Your task to perform on an android device: open the mobile data screen to see how much data has been used Image 0: 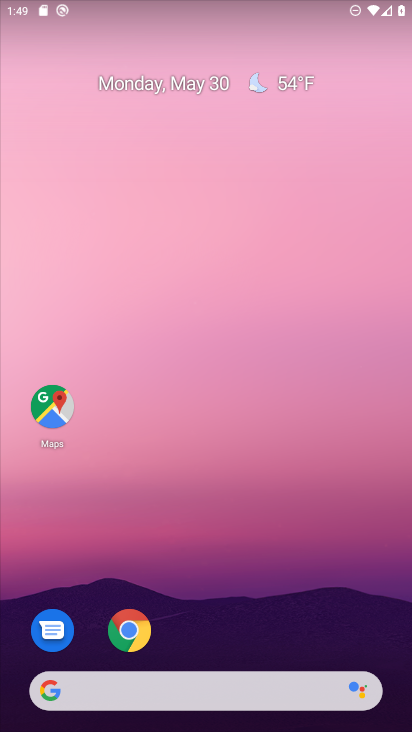
Step 0: drag from (221, 673) to (236, 144)
Your task to perform on an android device: open the mobile data screen to see how much data has been used Image 1: 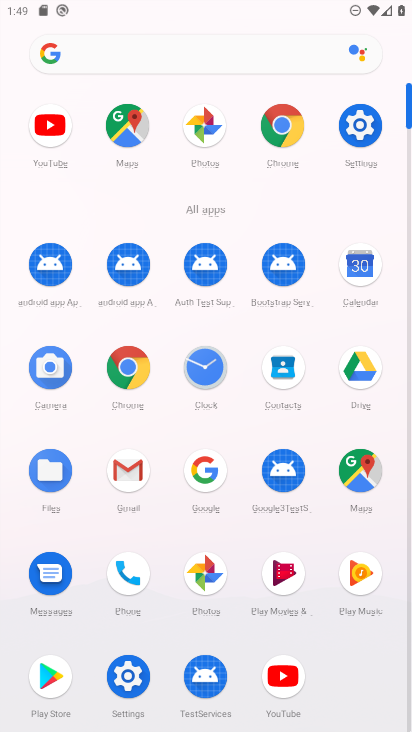
Step 1: click (344, 142)
Your task to perform on an android device: open the mobile data screen to see how much data has been used Image 2: 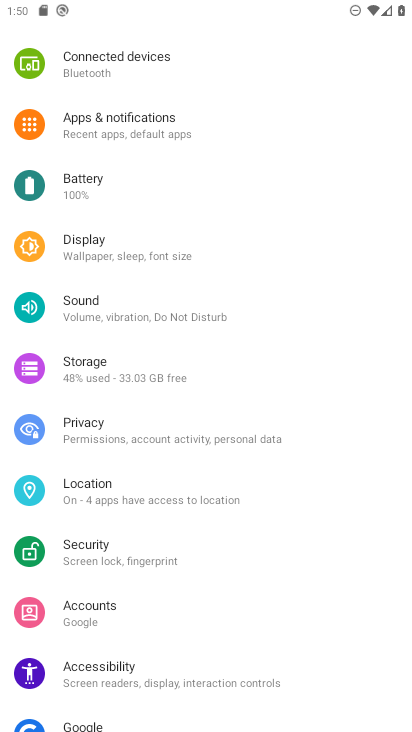
Step 2: drag from (192, 96) to (168, 424)
Your task to perform on an android device: open the mobile data screen to see how much data has been used Image 3: 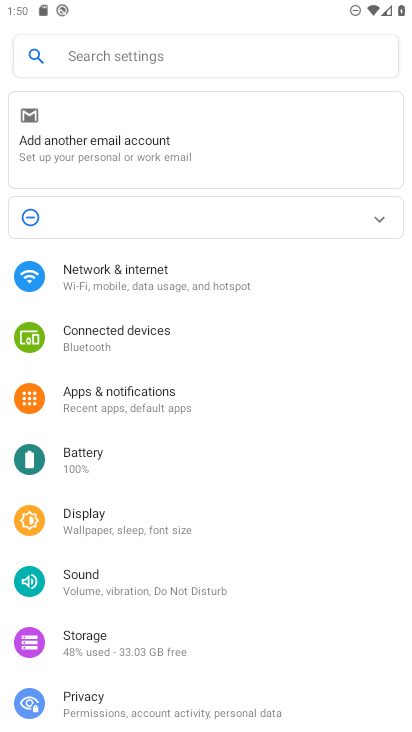
Step 3: click (120, 280)
Your task to perform on an android device: open the mobile data screen to see how much data has been used Image 4: 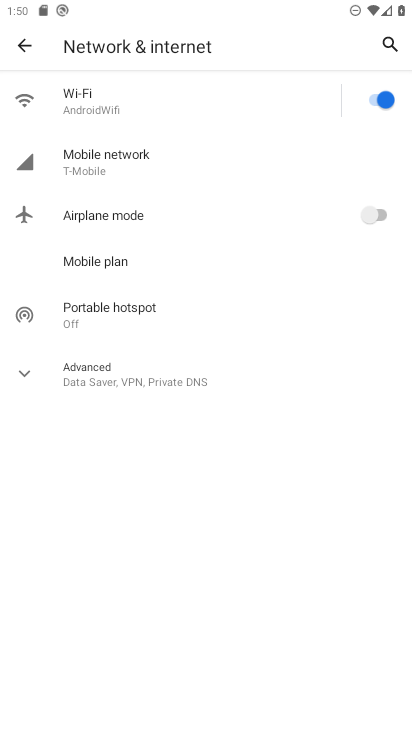
Step 4: click (122, 162)
Your task to perform on an android device: open the mobile data screen to see how much data has been used Image 5: 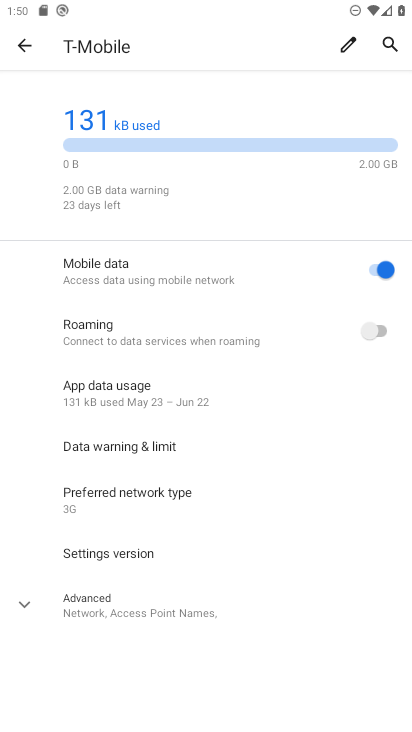
Step 5: task complete